Your task to perform on an android device: check storage Image 0: 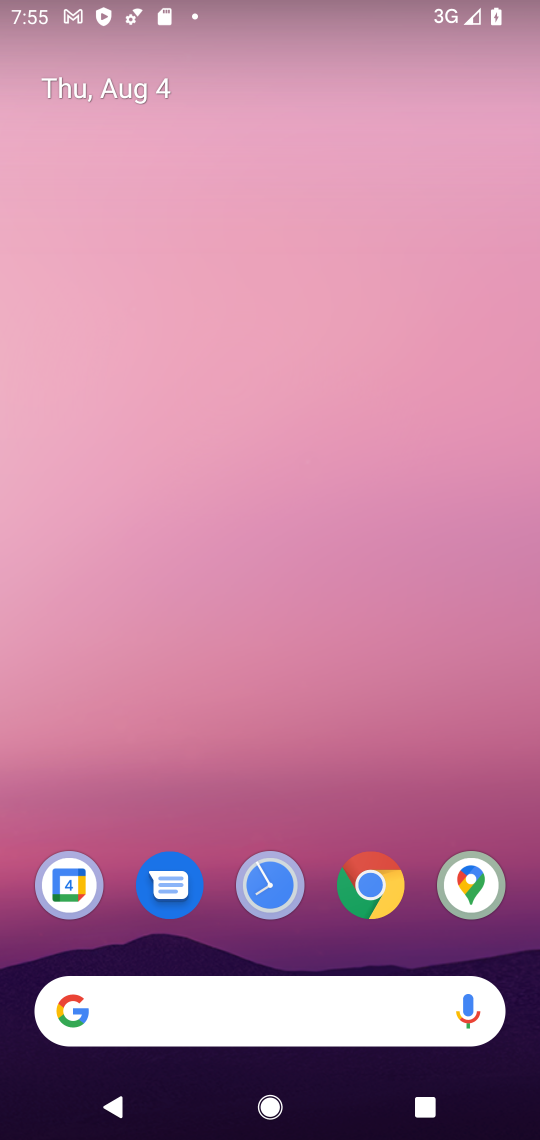
Step 0: press home button
Your task to perform on an android device: check storage Image 1: 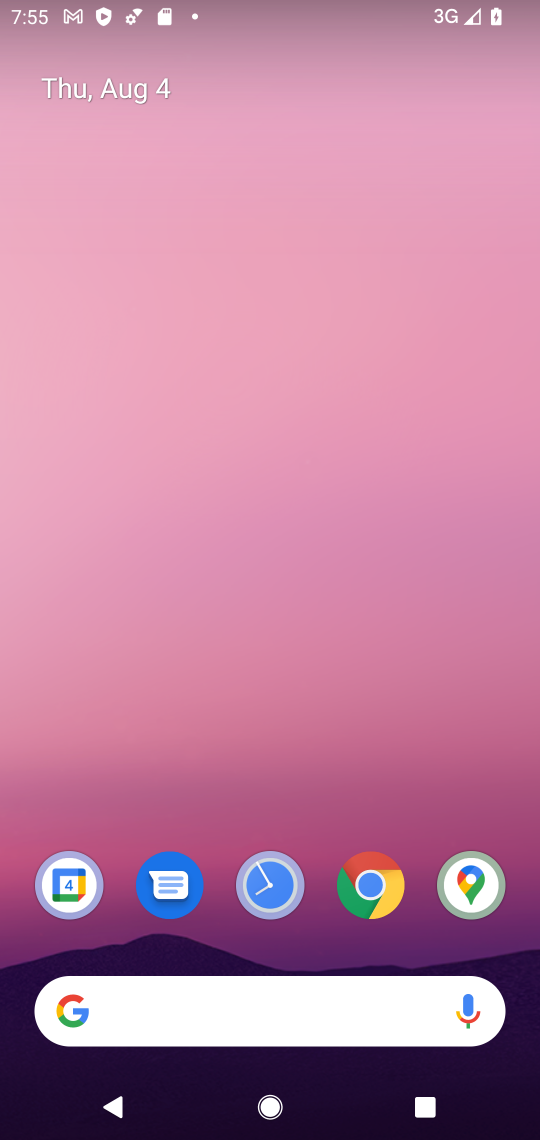
Step 1: drag from (297, 950) to (252, 138)
Your task to perform on an android device: check storage Image 2: 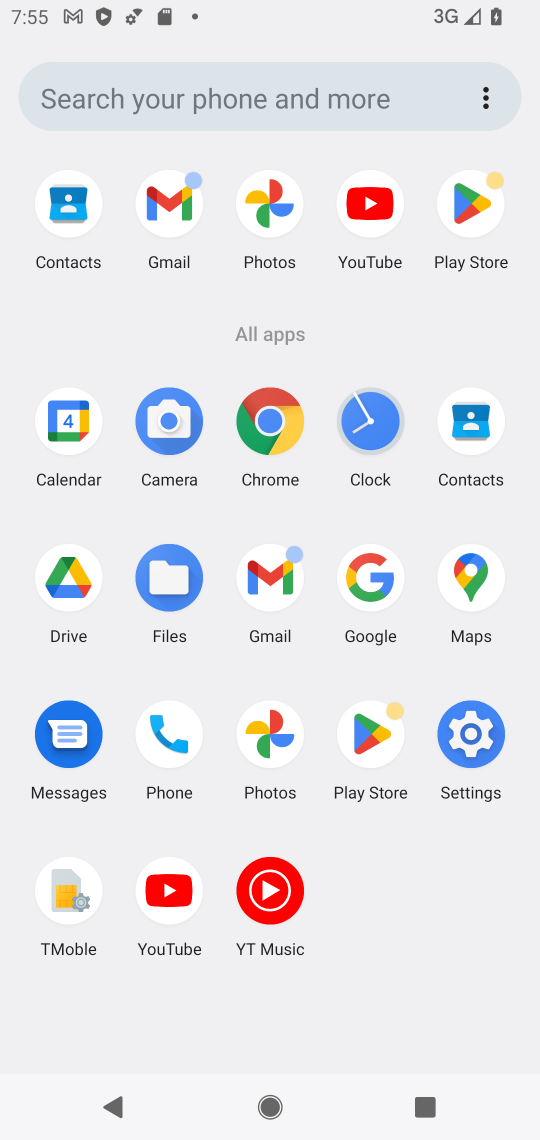
Step 2: click (476, 756)
Your task to perform on an android device: check storage Image 3: 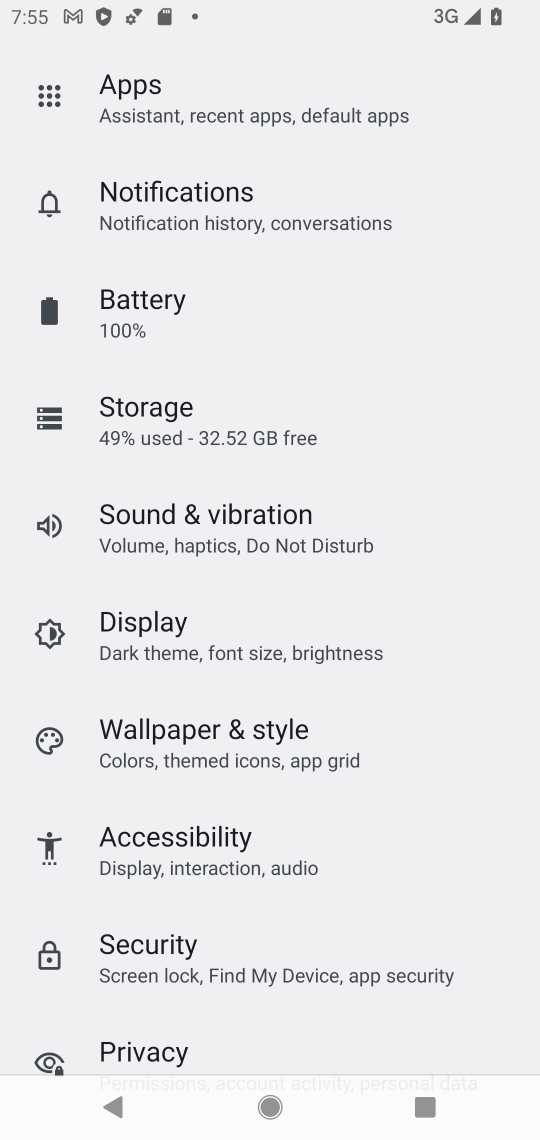
Step 3: click (173, 440)
Your task to perform on an android device: check storage Image 4: 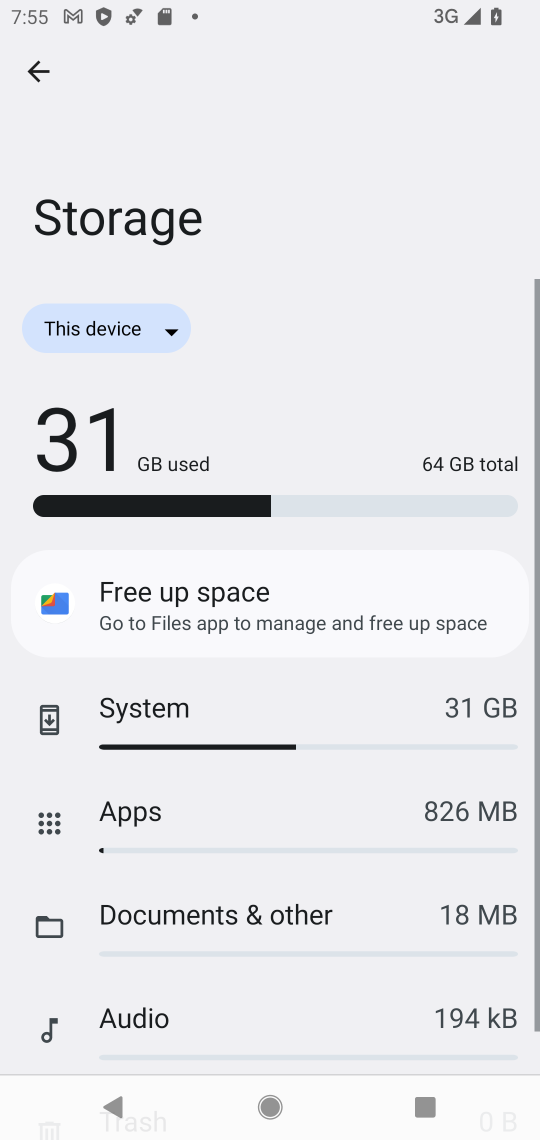
Step 4: task complete